Your task to perform on an android device: Open Reddit.com Image 0: 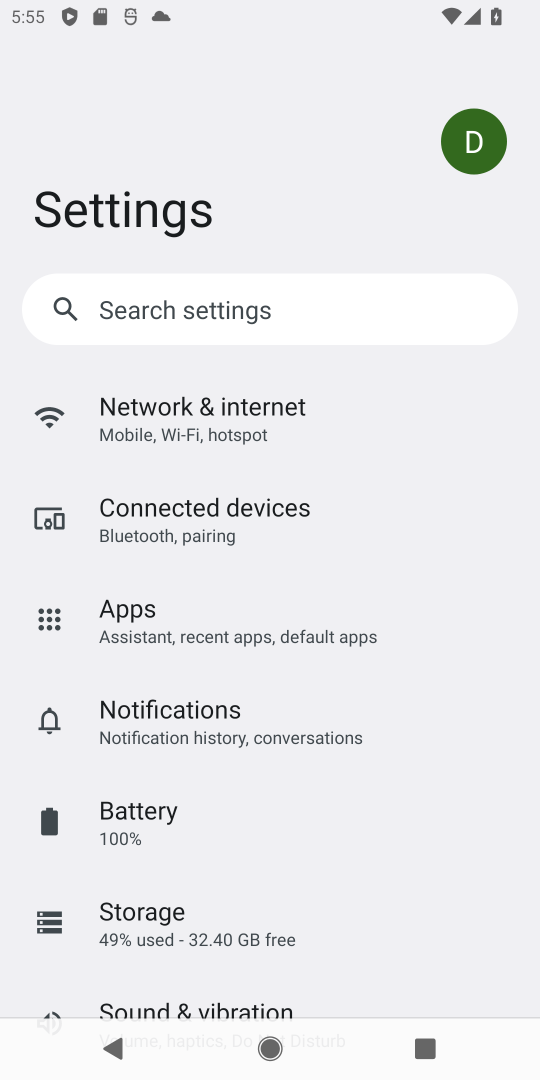
Step 0: press back button
Your task to perform on an android device: Open Reddit.com Image 1: 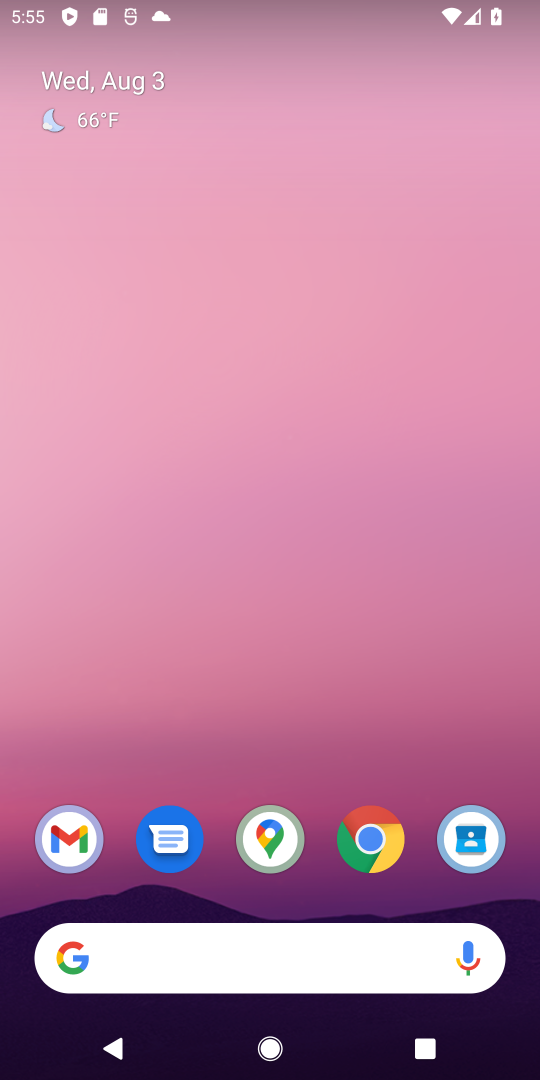
Step 1: click (375, 851)
Your task to perform on an android device: Open Reddit.com Image 2: 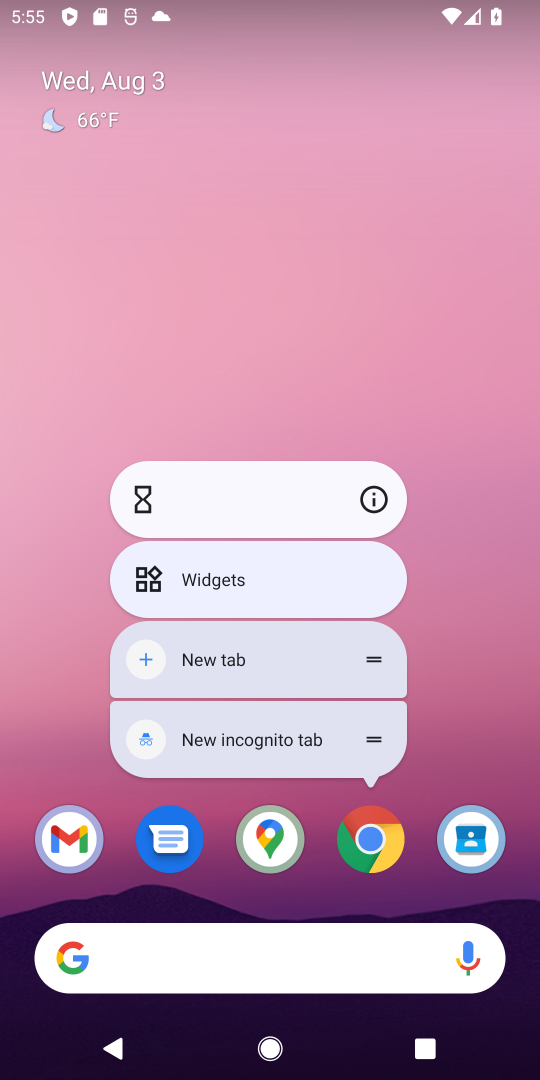
Step 2: click (363, 836)
Your task to perform on an android device: Open Reddit.com Image 3: 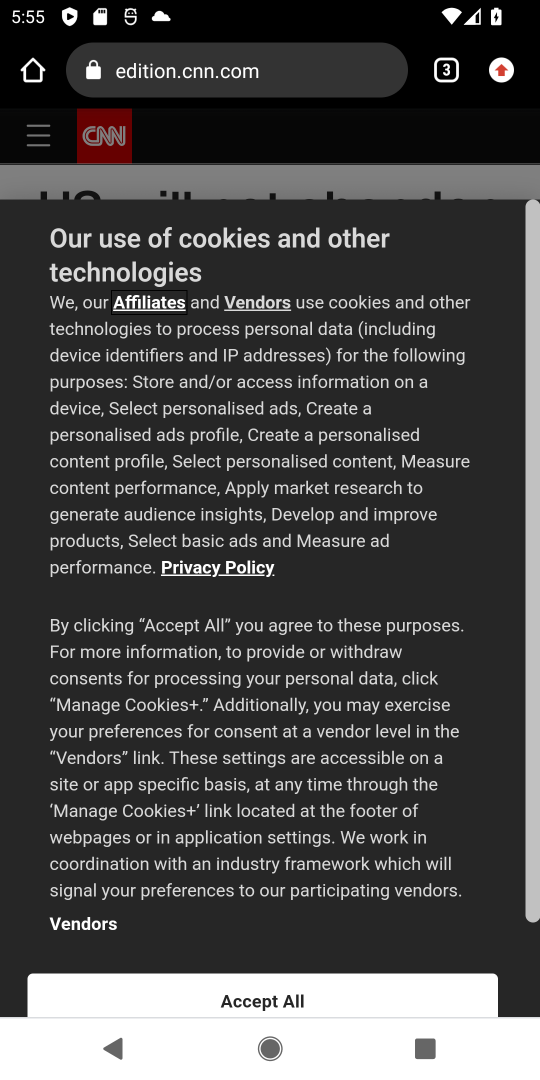
Step 3: click (456, 66)
Your task to perform on an android device: Open Reddit.com Image 4: 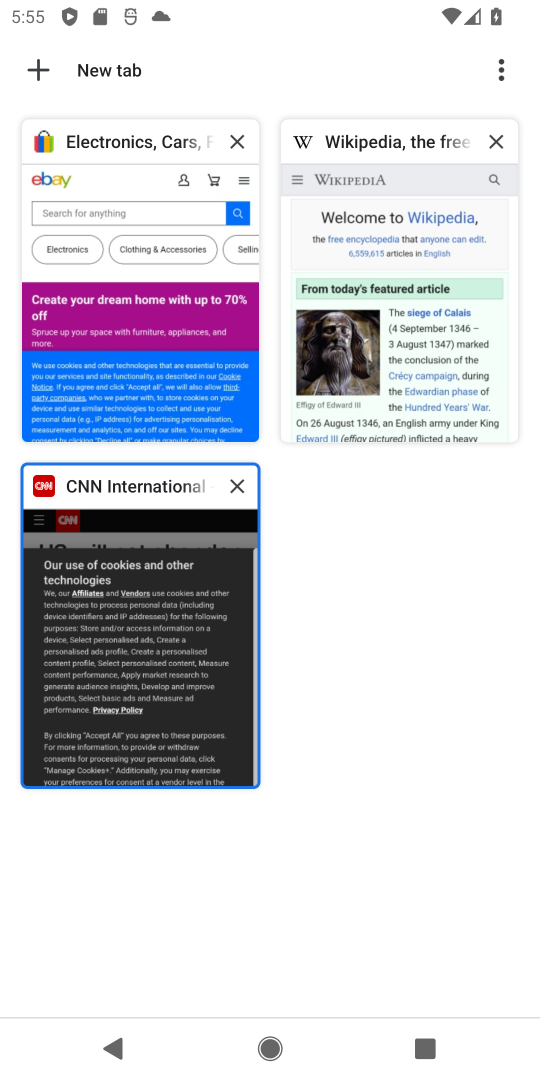
Step 4: click (41, 58)
Your task to perform on an android device: Open Reddit.com Image 5: 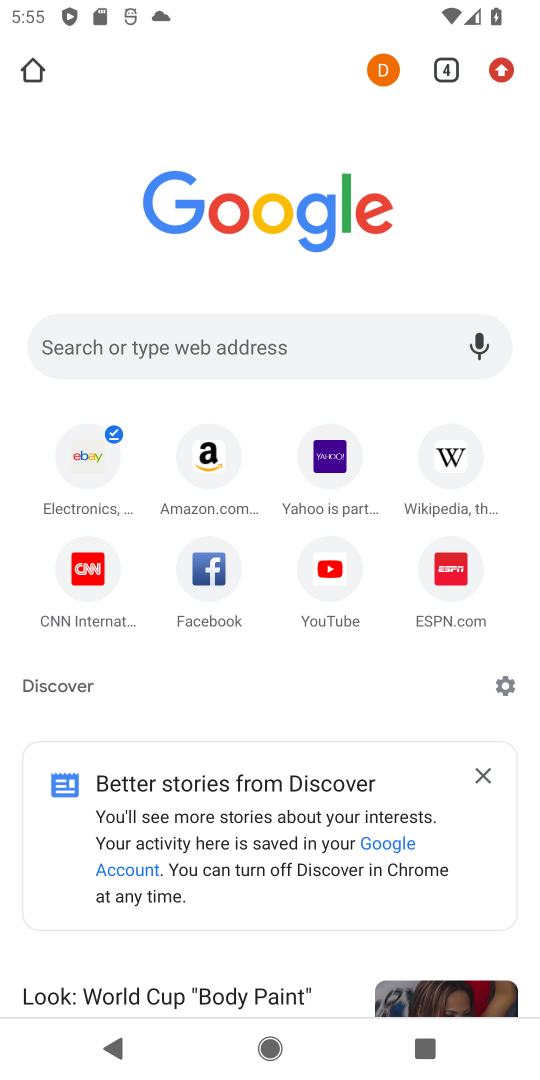
Step 5: click (204, 357)
Your task to perform on an android device: Open Reddit.com Image 6: 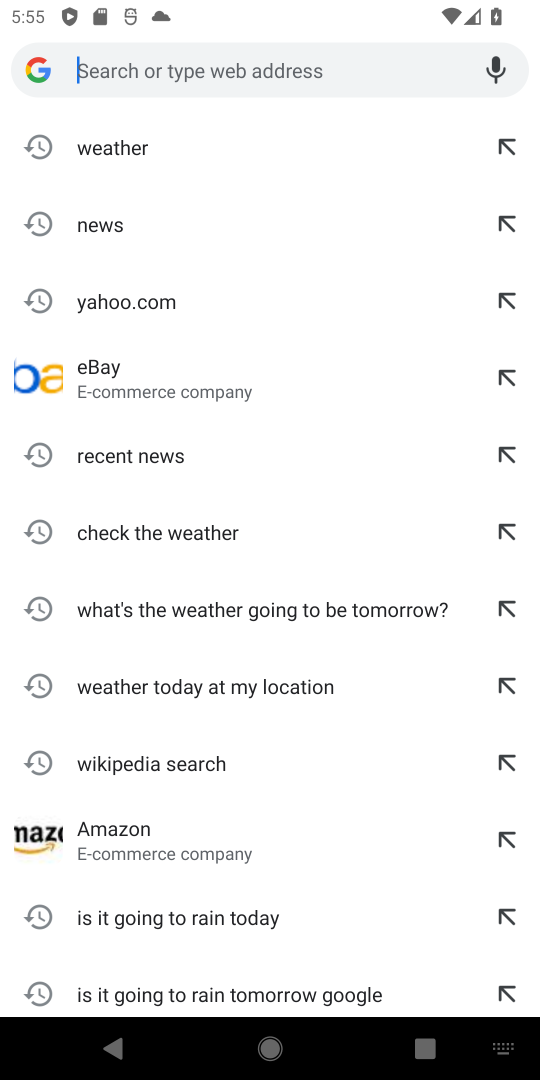
Step 6: press back button
Your task to perform on an android device: Open Reddit.com Image 7: 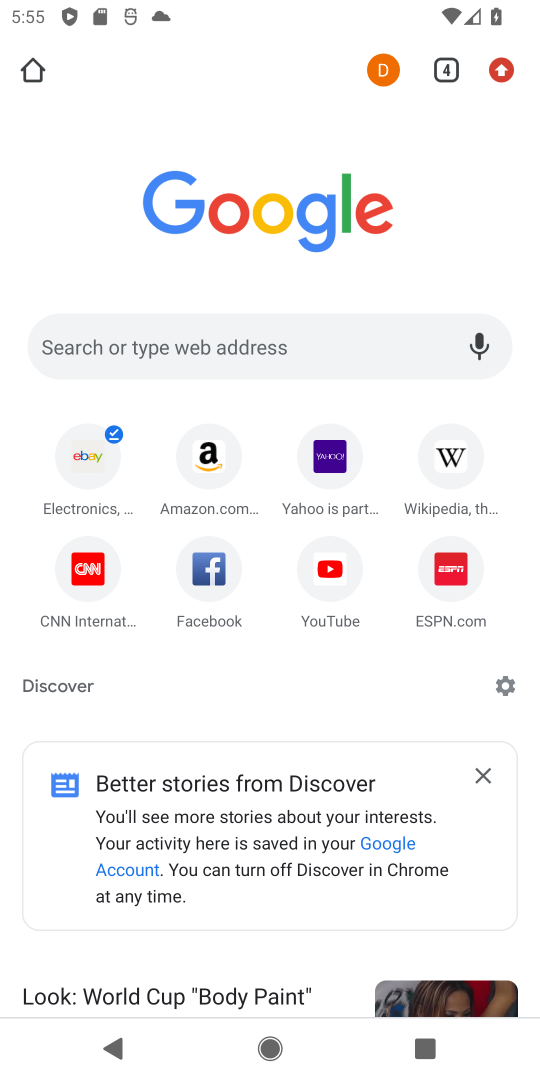
Step 7: click (131, 354)
Your task to perform on an android device: Open Reddit.com Image 8: 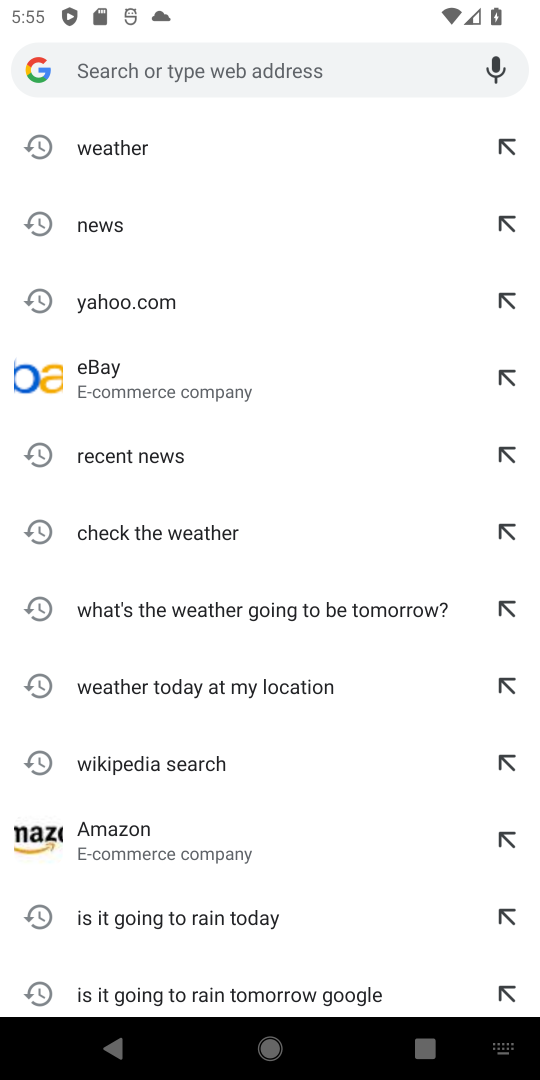
Step 8: type "reddit.com"
Your task to perform on an android device: Open Reddit.com Image 9: 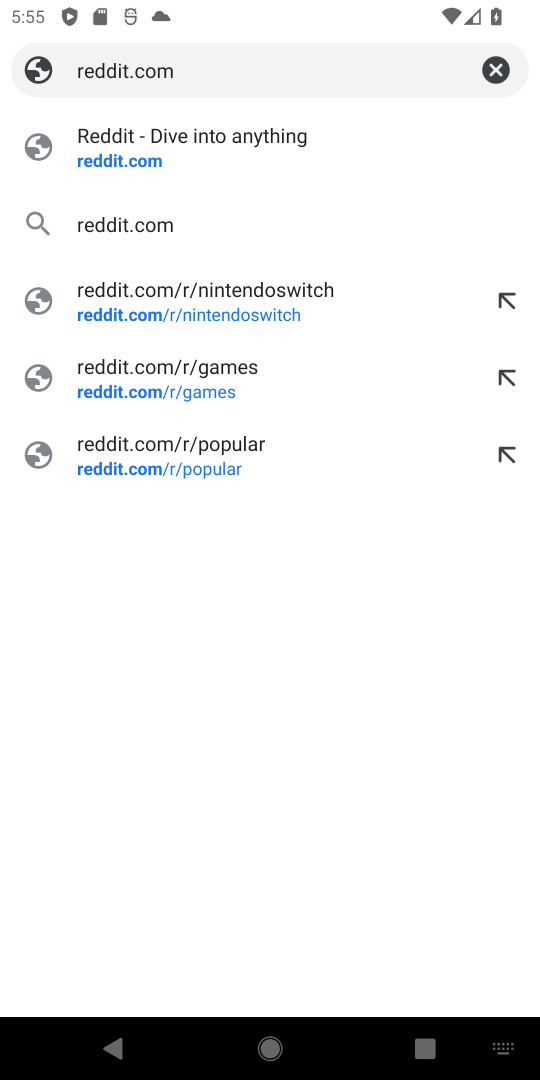
Step 9: click (228, 140)
Your task to perform on an android device: Open Reddit.com Image 10: 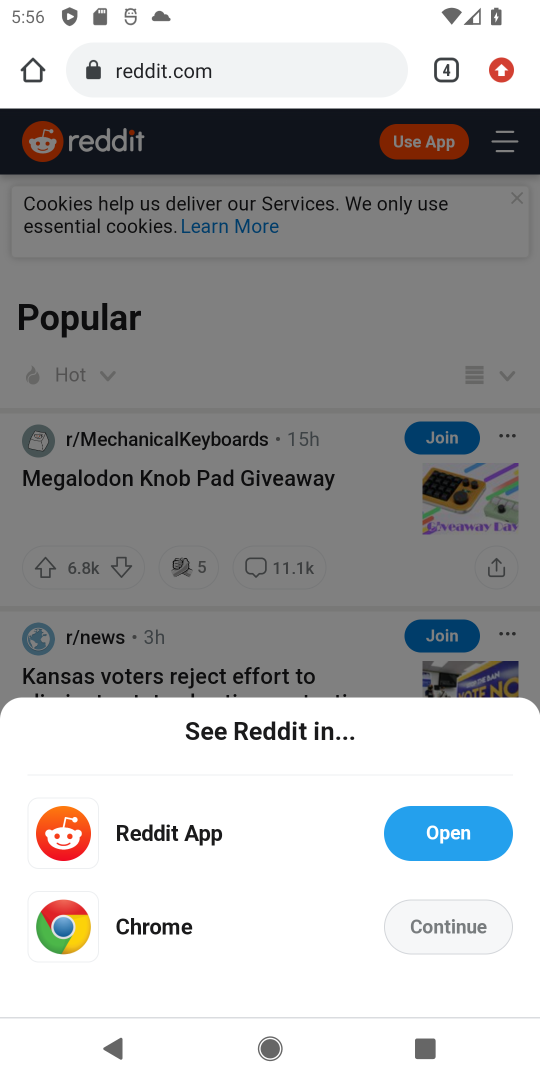
Step 10: task complete